Your task to perform on an android device: turn off javascript in the chrome app Image 0: 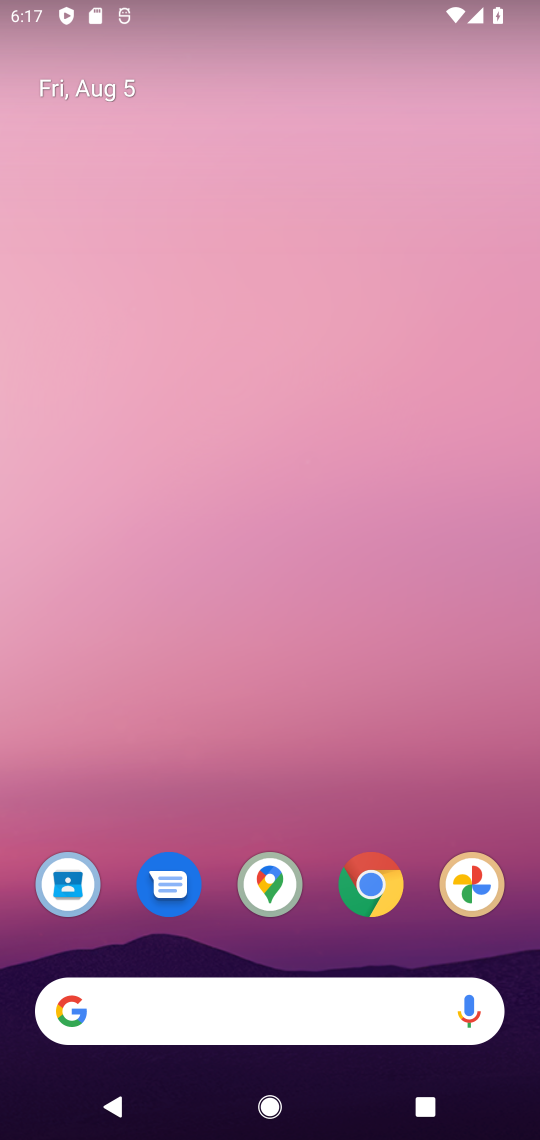
Step 0: drag from (333, 911) to (432, 45)
Your task to perform on an android device: turn off javascript in the chrome app Image 1: 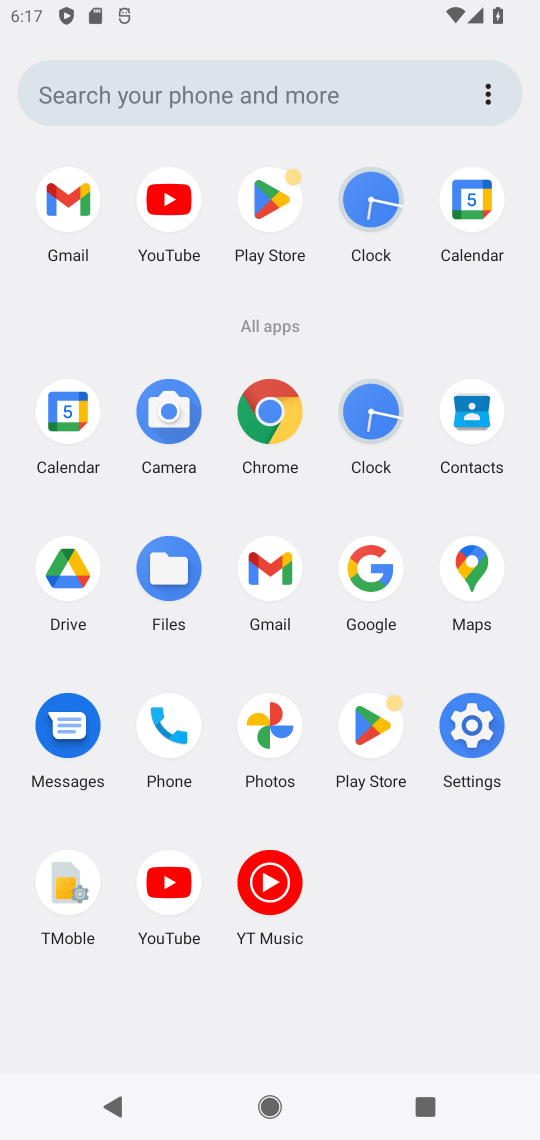
Step 1: click (265, 395)
Your task to perform on an android device: turn off javascript in the chrome app Image 2: 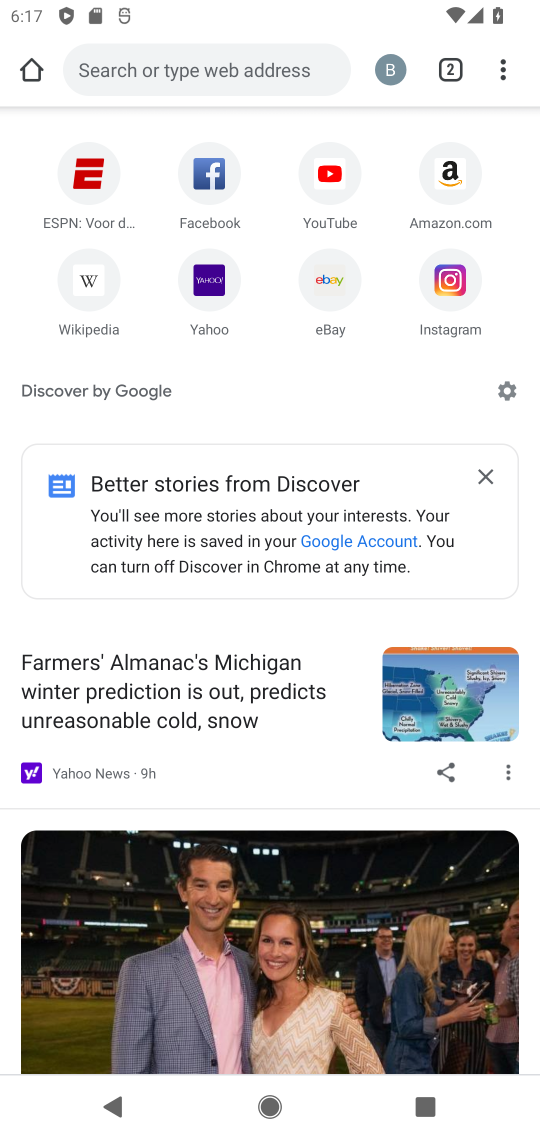
Step 2: click (503, 62)
Your task to perform on an android device: turn off javascript in the chrome app Image 3: 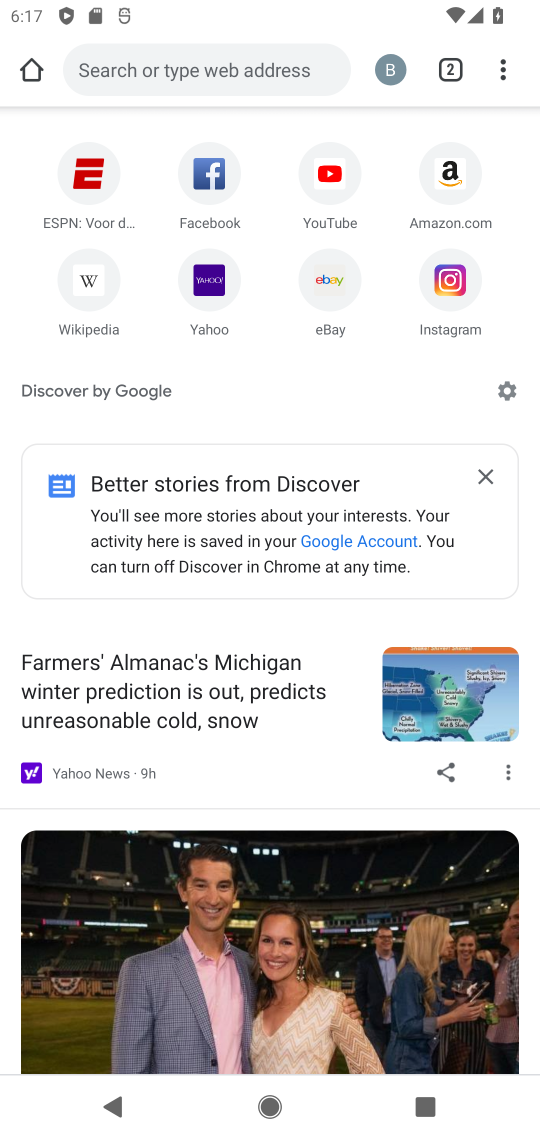
Step 3: click (507, 69)
Your task to perform on an android device: turn off javascript in the chrome app Image 4: 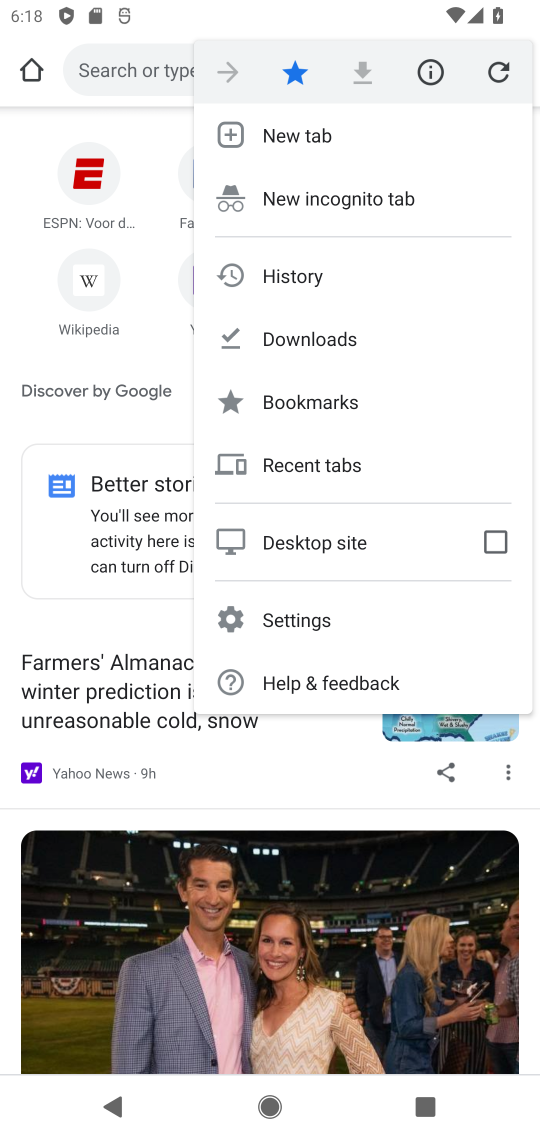
Step 4: click (340, 610)
Your task to perform on an android device: turn off javascript in the chrome app Image 5: 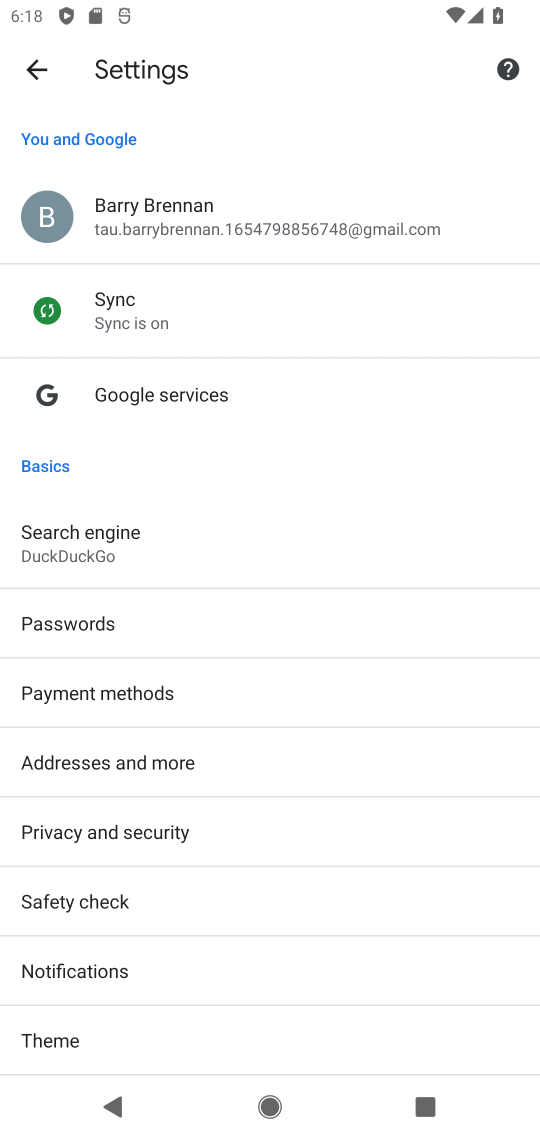
Step 5: drag from (223, 990) to (214, 307)
Your task to perform on an android device: turn off javascript in the chrome app Image 6: 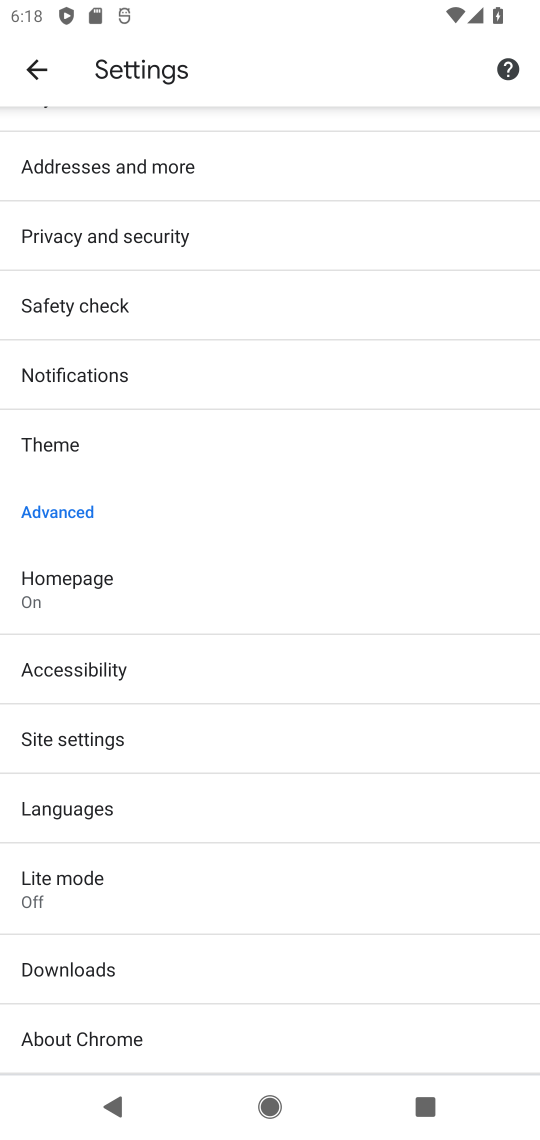
Step 6: click (146, 745)
Your task to perform on an android device: turn off javascript in the chrome app Image 7: 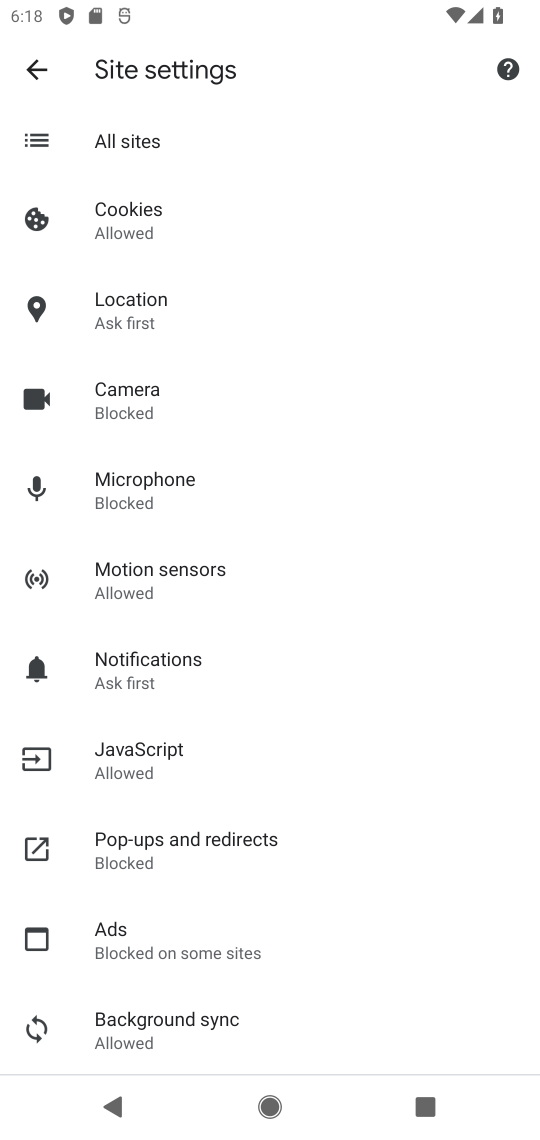
Step 7: click (195, 761)
Your task to perform on an android device: turn off javascript in the chrome app Image 8: 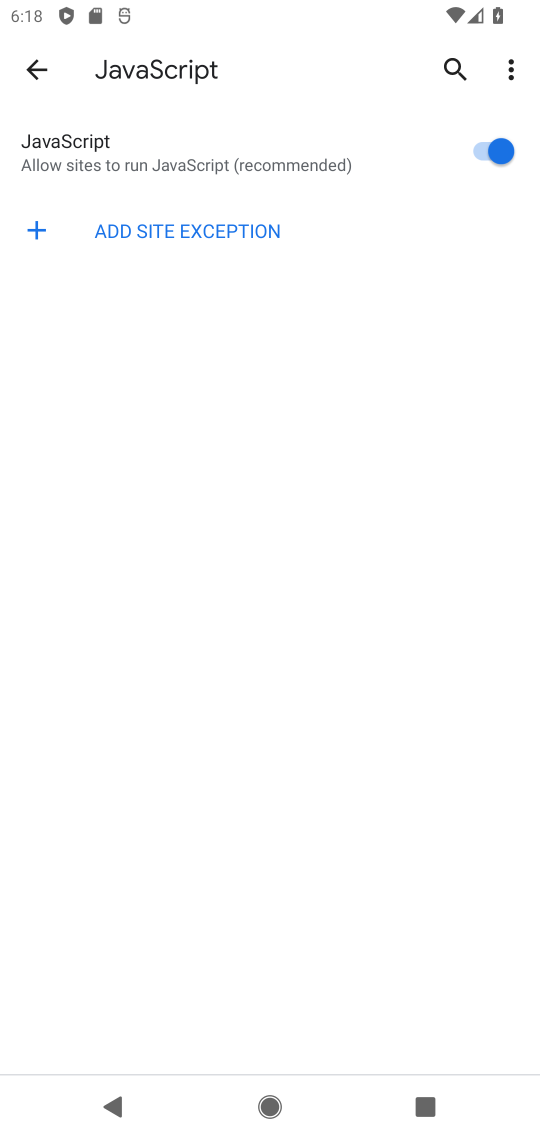
Step 8: click (490, 146)
Your task to perform on an android device: turn off javascript in the chrome app Image 9: 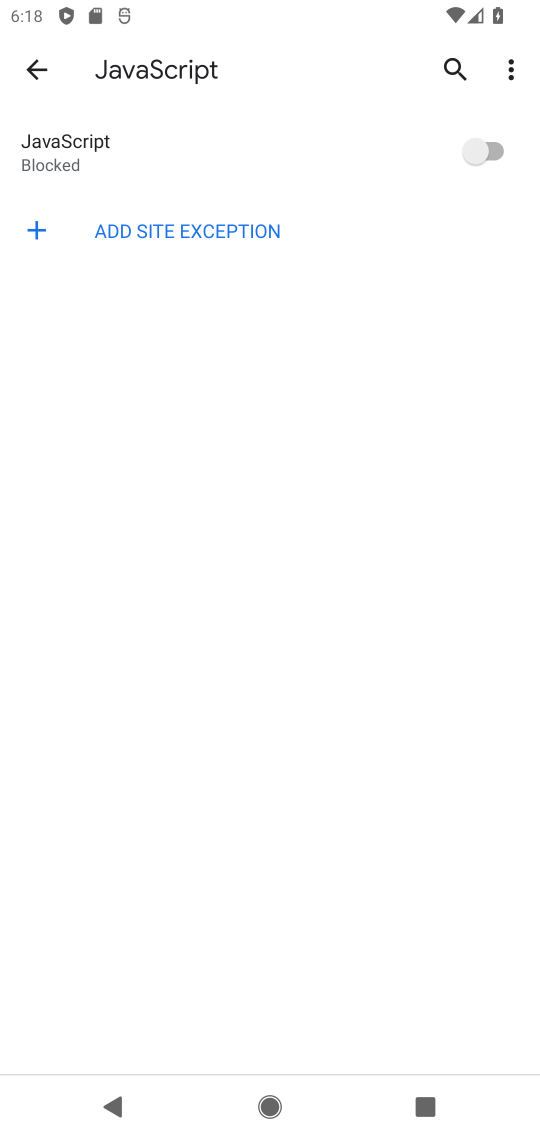
Step 9: task complete